Your task to perform on an android device: Go to location settings Image 0: 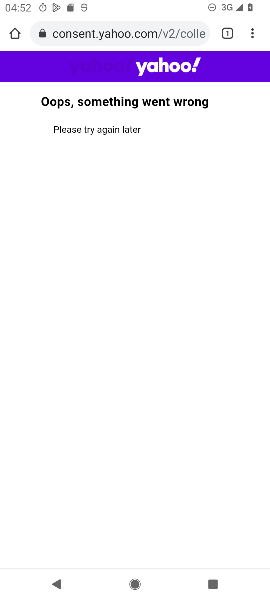
Step 0: press home button
Your task to perform on an android device: Go to location settings Image 1: 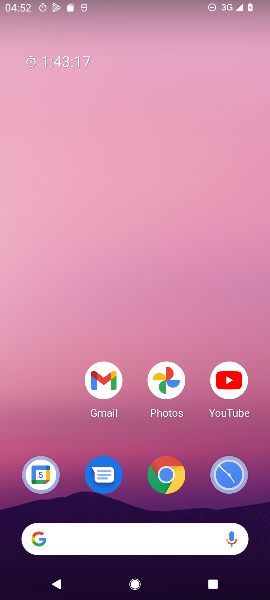
Step 1: drag from (67, 443) to (73, 176)
Your task to perform on an android device: Go to location settings Image 2: 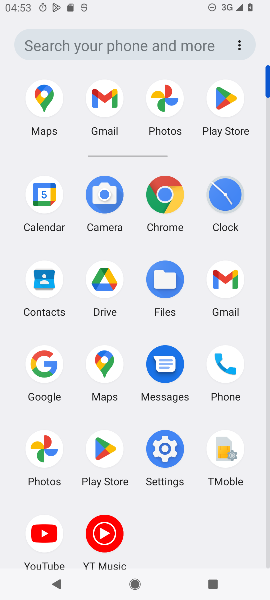
Step 2: click (162, 451)
Your task to perform on an android device: Go to location settings Image 3: 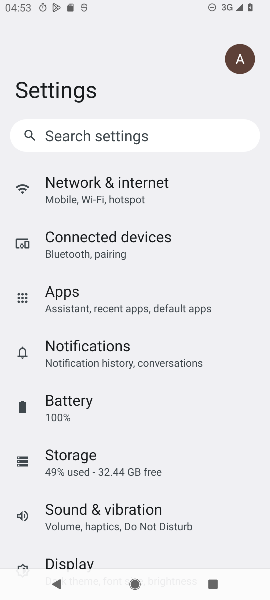
Step 3: drag from (208, 465) to (221, 326)
Your task to perform on an android device: Go to location settings Image 4: 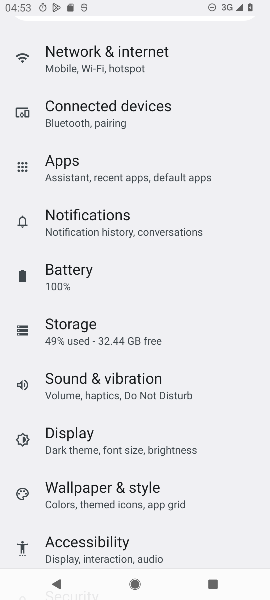
Step 4: drag from (213, 481) to (212, 362)
Your task to perform on an android device: Go to location settings Image 5: 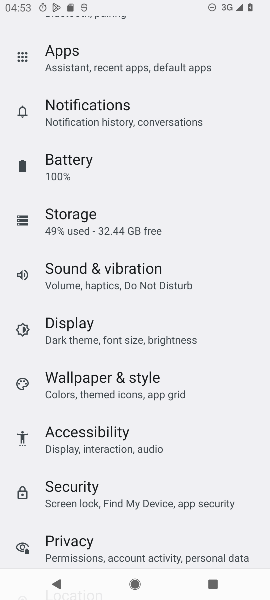
Step 5: drag from (212, 423) to (224, 325)
Your task to perform on an android device: Go to location settings Image 6: 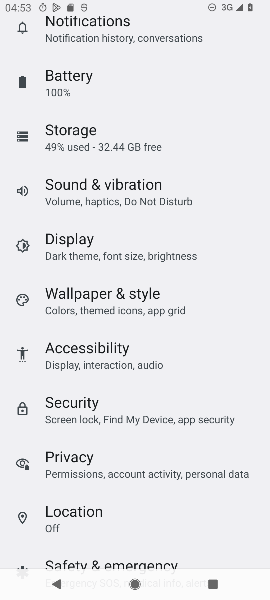
Step 6: drag from (209, 491) to (226, 357)
Your task to perform on an android device: Go to location settings Image 7: 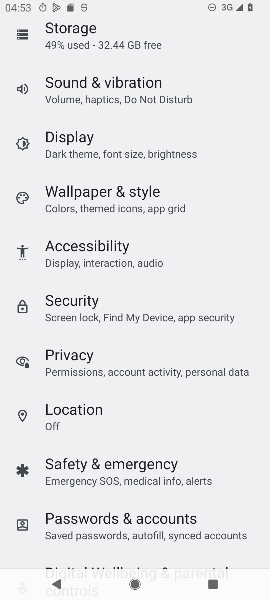
Step 7: drag from (202, 438) to (211, 329)
Your task to perform on an android device: Go to location settings Image 8: 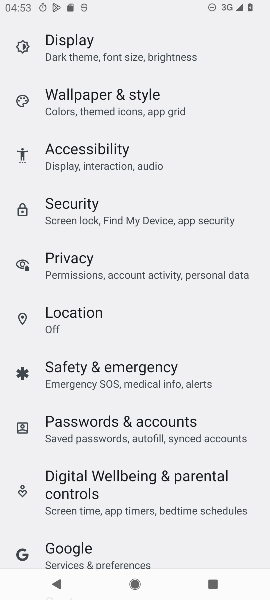
Step 8: click (147, 329)
Your task to perform on an android device: Go to location settings Image 9: 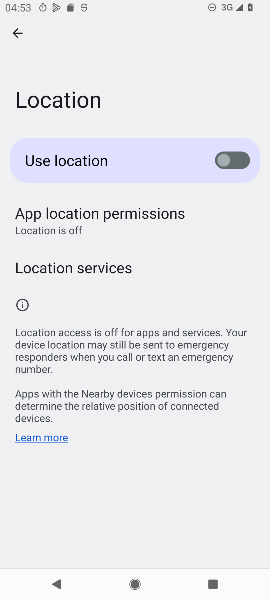
Step 9: task complete